Your task to perform on an android device: search for starred emails in the gmail app Image 0: 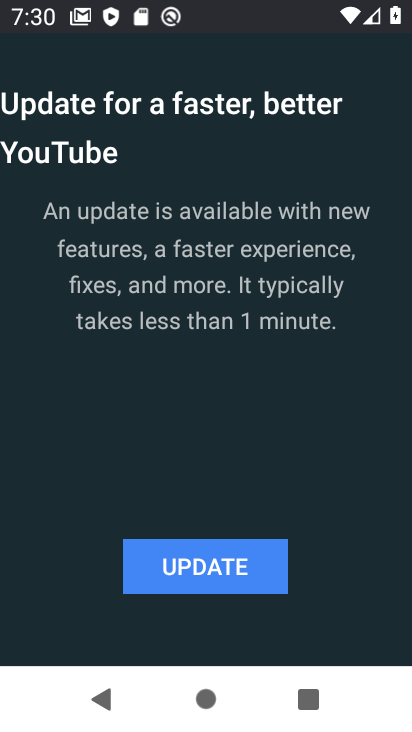
Step 0: press home button
Your task to perform on an android device: search for starred emails in the gmail app Image 1: 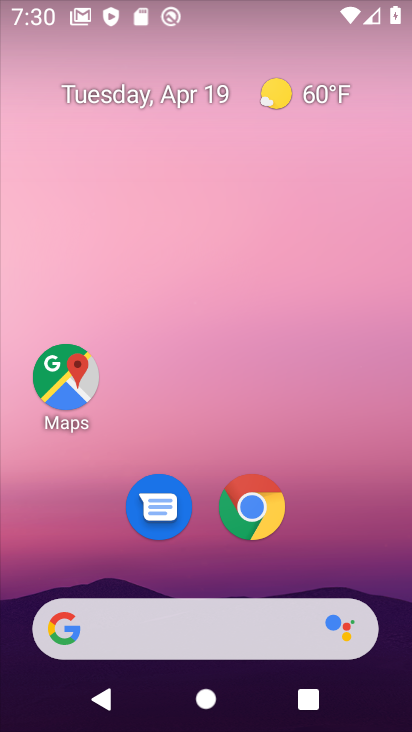
Step 1: drag from (333, 498) to (352, 54)
Your task to perform on an android device: search for starred emails in the gmail app Image 2: 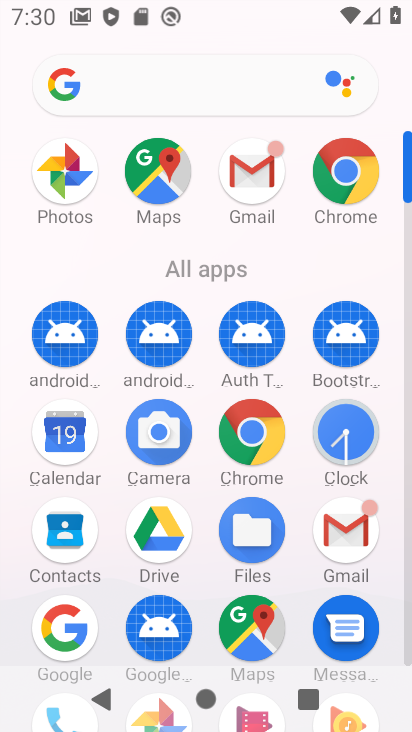
Step 2: click (255, 179)
Your task to perform on an android device: search for starred emails in the gmail app Image 3: 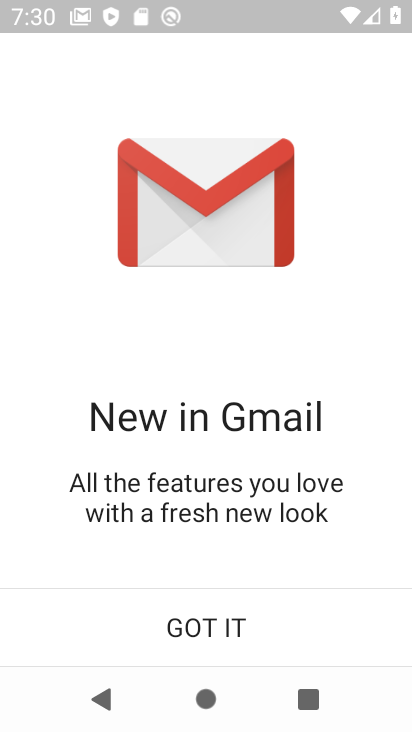
Step 3: click (242, 618)
Your task to perform on an android device: search for starred emails in the gmail app Image 4: 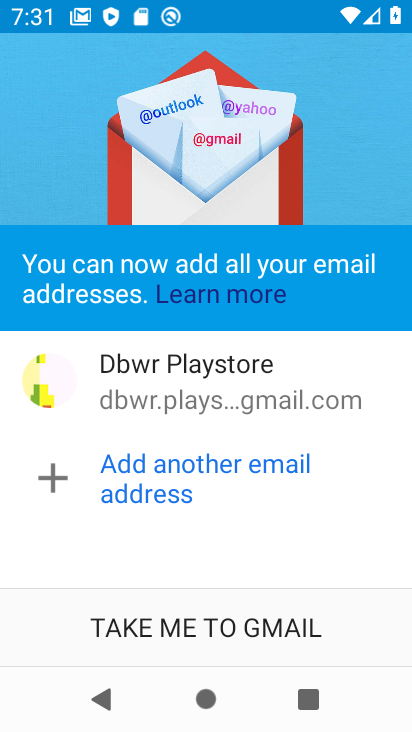
Step 4: click (234, 613)
Your task to perform on an android device: search for starred emails in the gmail app Image 5: 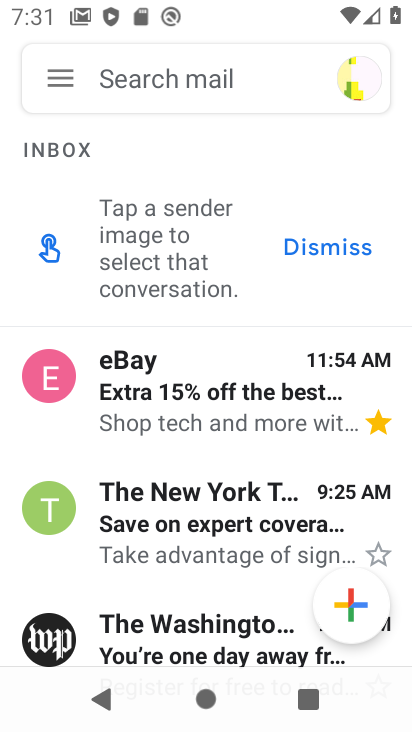
Step 5: click (58, 71)
Your task to perform on an android device: search for starred emails in the gmail app Image 6: 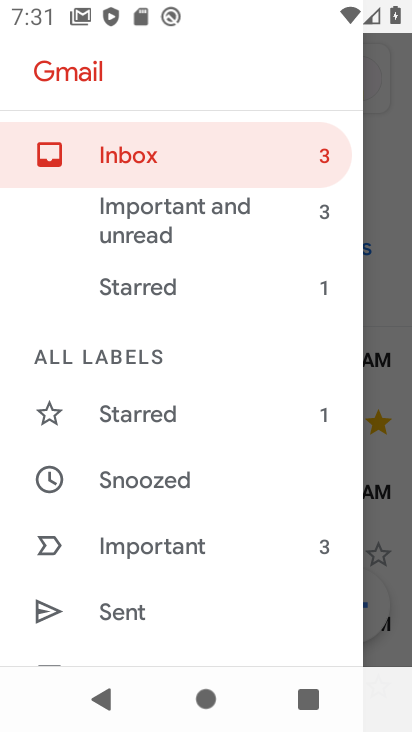
Step 6: click (155, 402)
Your task to perform on an android device: search for starred emails in the gmail app Image 7: 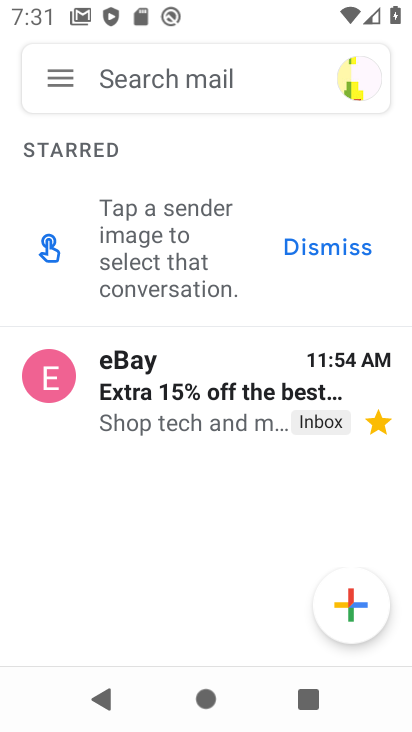
Step 7: task complete